Your task to perform on an android device: make emails show in primary in the gmail app Image 0: 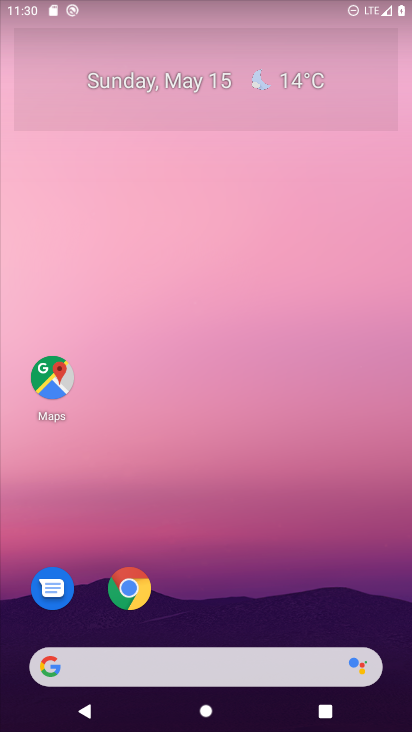
Step 0: drag from (255, 579) to (295, 196)
Your task to perform on an android device: make emails show in primary in the gmail app Image 1: 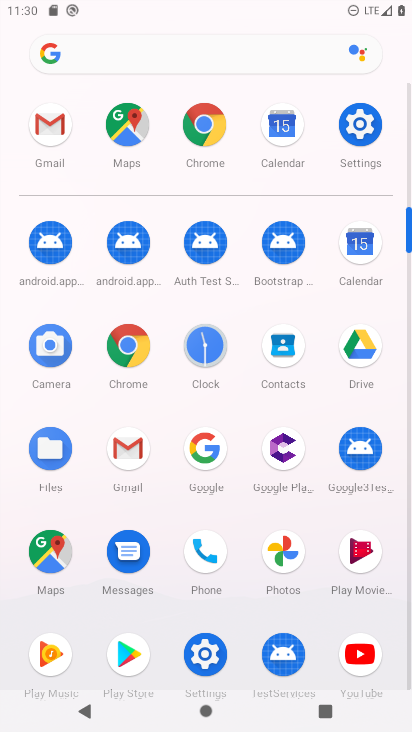
Step 1: click (134, 465)
Your task to perform on an android device: make emails show in primary in the gmail app Image 2: 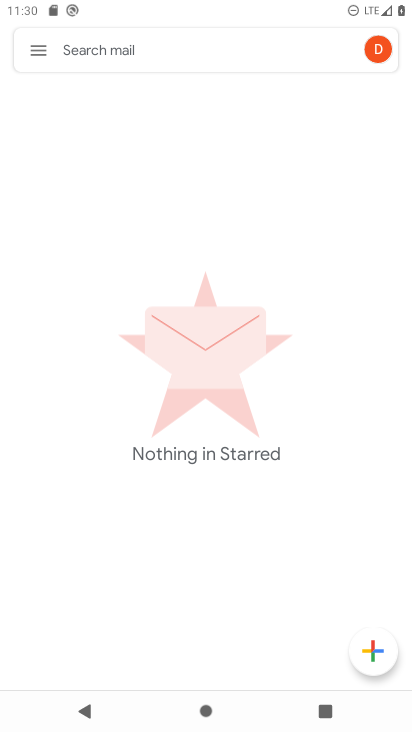
Step 2: click (39, 51)
Your task to perform on an android device: make emails show in primary in the gmail app Image 3: 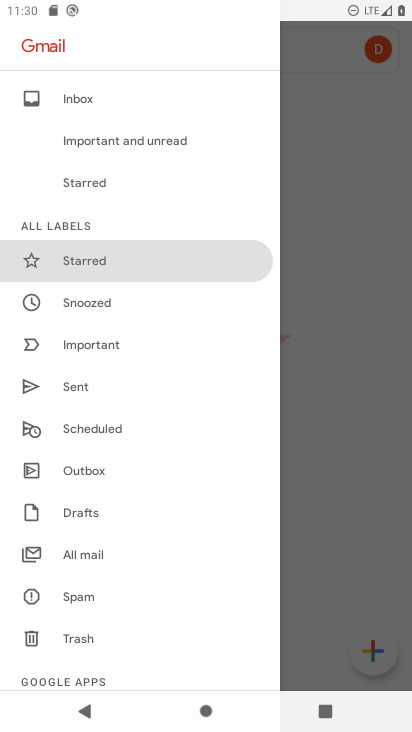
Step 3: drag from (111, 621) to (220, 96)
Your task to perform on an android device: make emails show in primary in the gmail app Image 4: 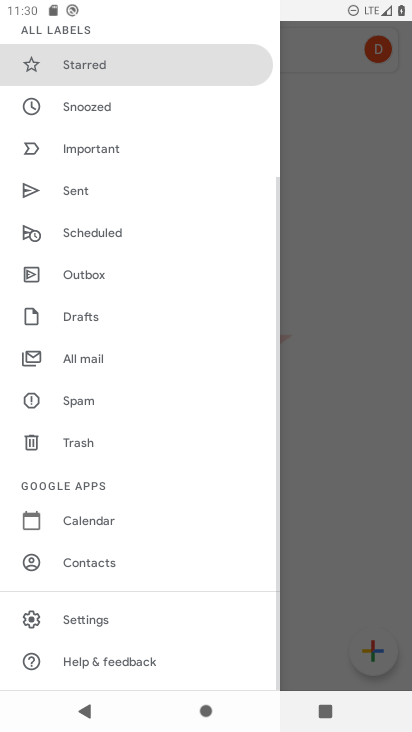
Step 4: click (95, 619)
Your task to perform on an android device: make emails show in primary in the gmail app Image 5: 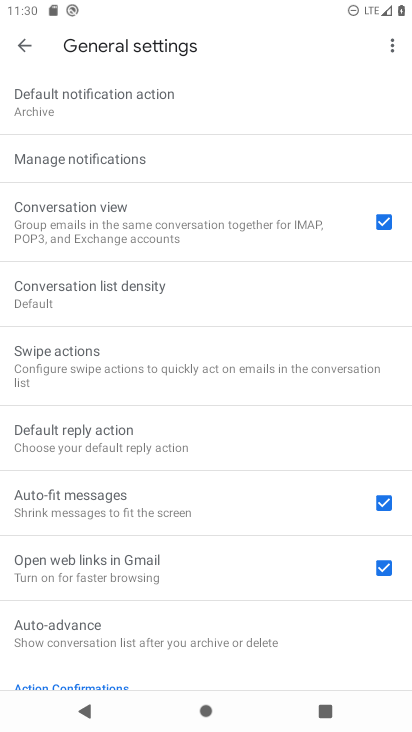
Step 5: click (24, 47)
Your task to perform on an android device: make emails show in primary in the gmail app Image 6: 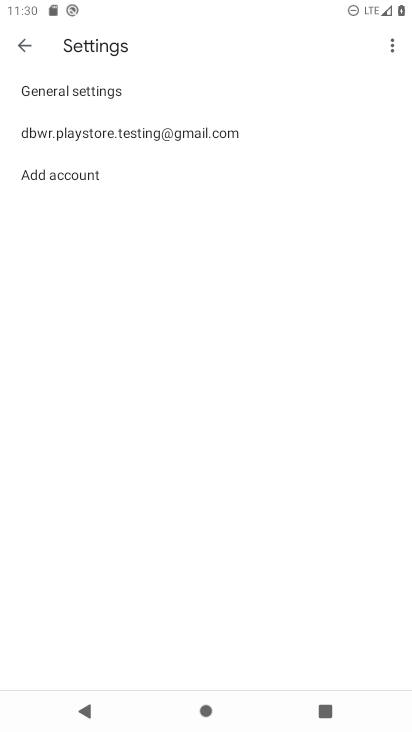
Step 6: click (109, 132)
Your task to perform on an android device: make emails show in primary in the gmail app Image 7: 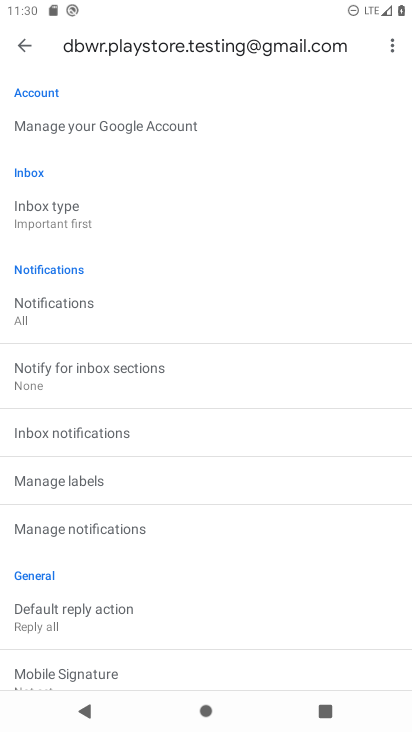
Step 7: click (84, 227)
Your task to perform on an android device: make emails show in primary in the gmail app Image 8: 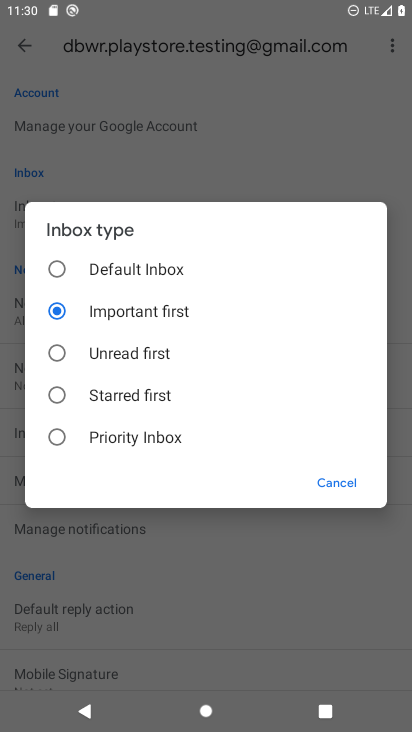
Step 8: click (95, 264)
Your task to perform on an android device: make emails show in primary in the gmail app Image 9: 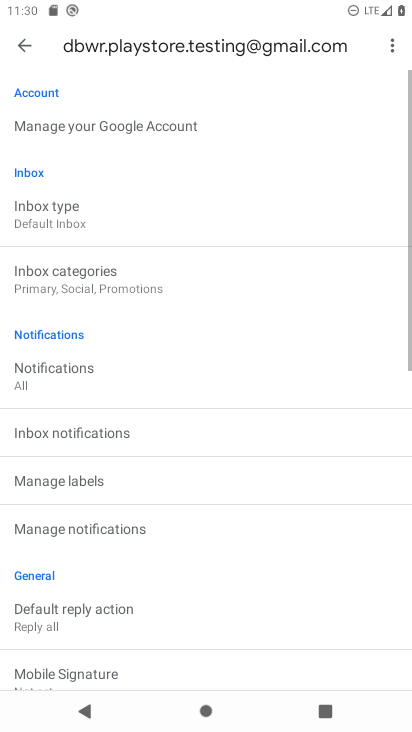
Step 9: click (95, 289)
Your task to perform on an android device: make emails show in primary in the gmail app Image 10: 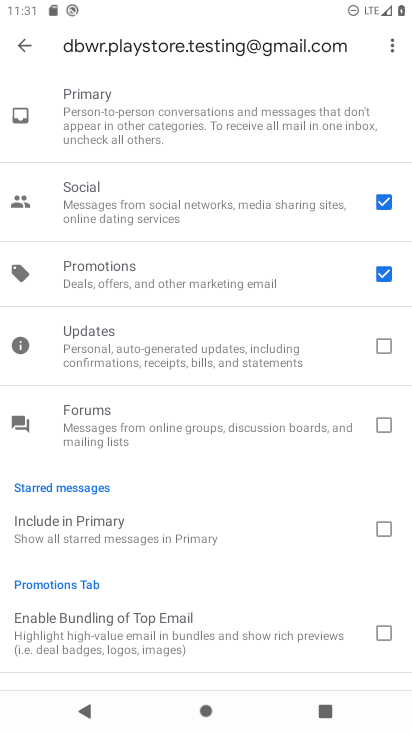
Step 10: click (340, 284)
Your task to perform on an android device: make emails show in primary in the gmail app Image 11: 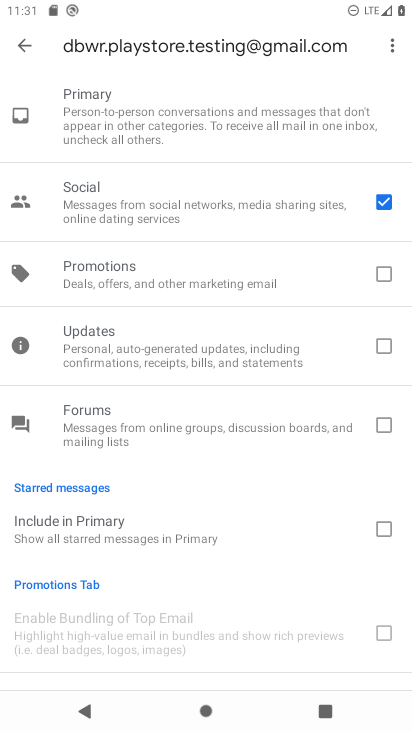
Step 11: click (378, 204)
Your task to perform on an android device: make emails show in primary in the gmail app Image 12: 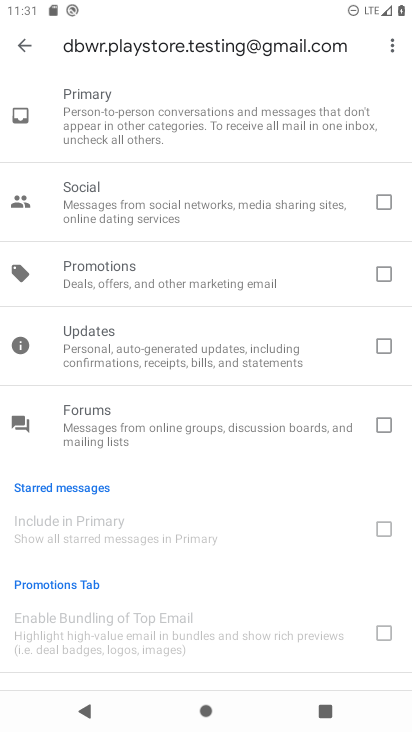
Step 12: task complete